Your task to perform on an android device: Look up the best rated bike seats on Target Image 0: 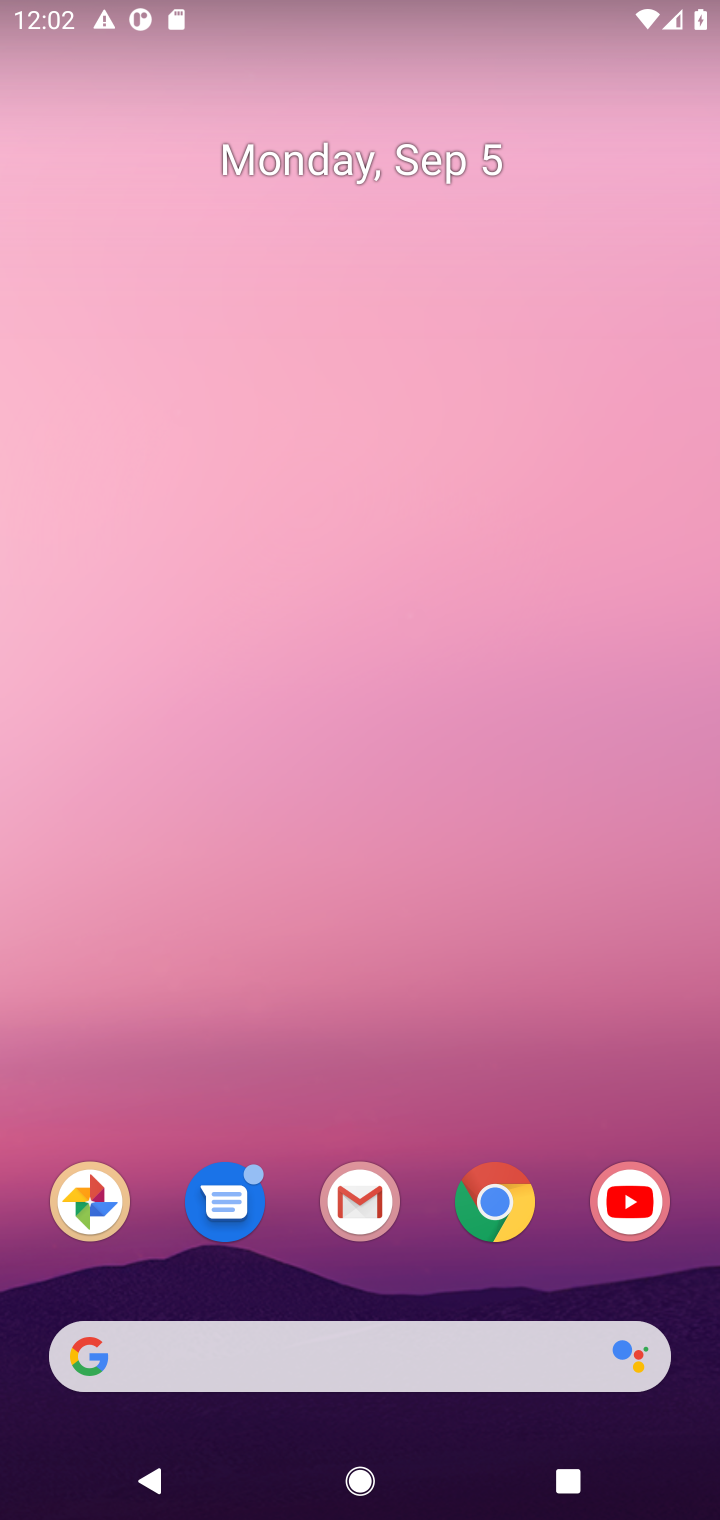
Step 0: drag from (592, 272) to (566, 46)
Your task to perform on an android device: Look up the best rated bike seats on Target Image 1: 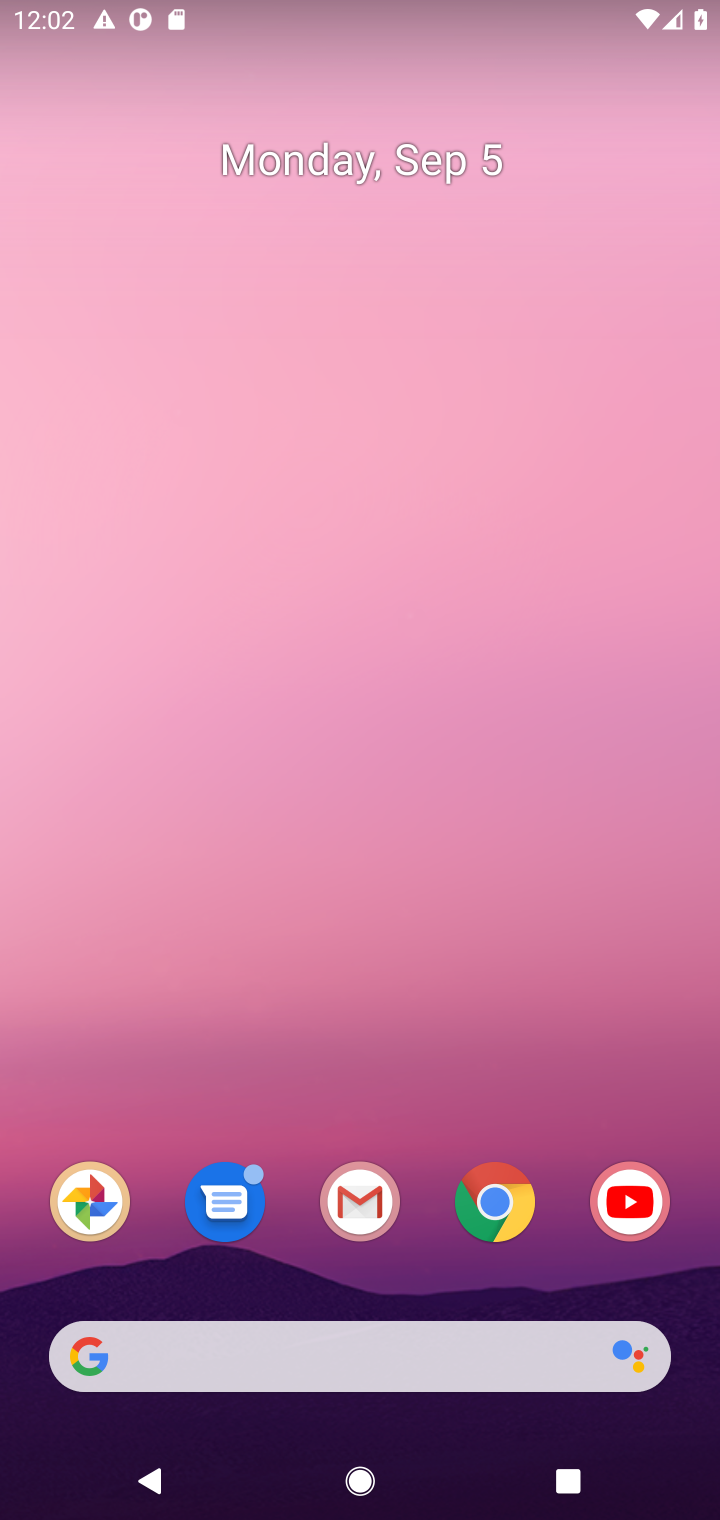
Step 1: drag from (386, 32) to (454, 3)
Your task to perform on an android device: Look up the best rated bike seats on Target Image 2: 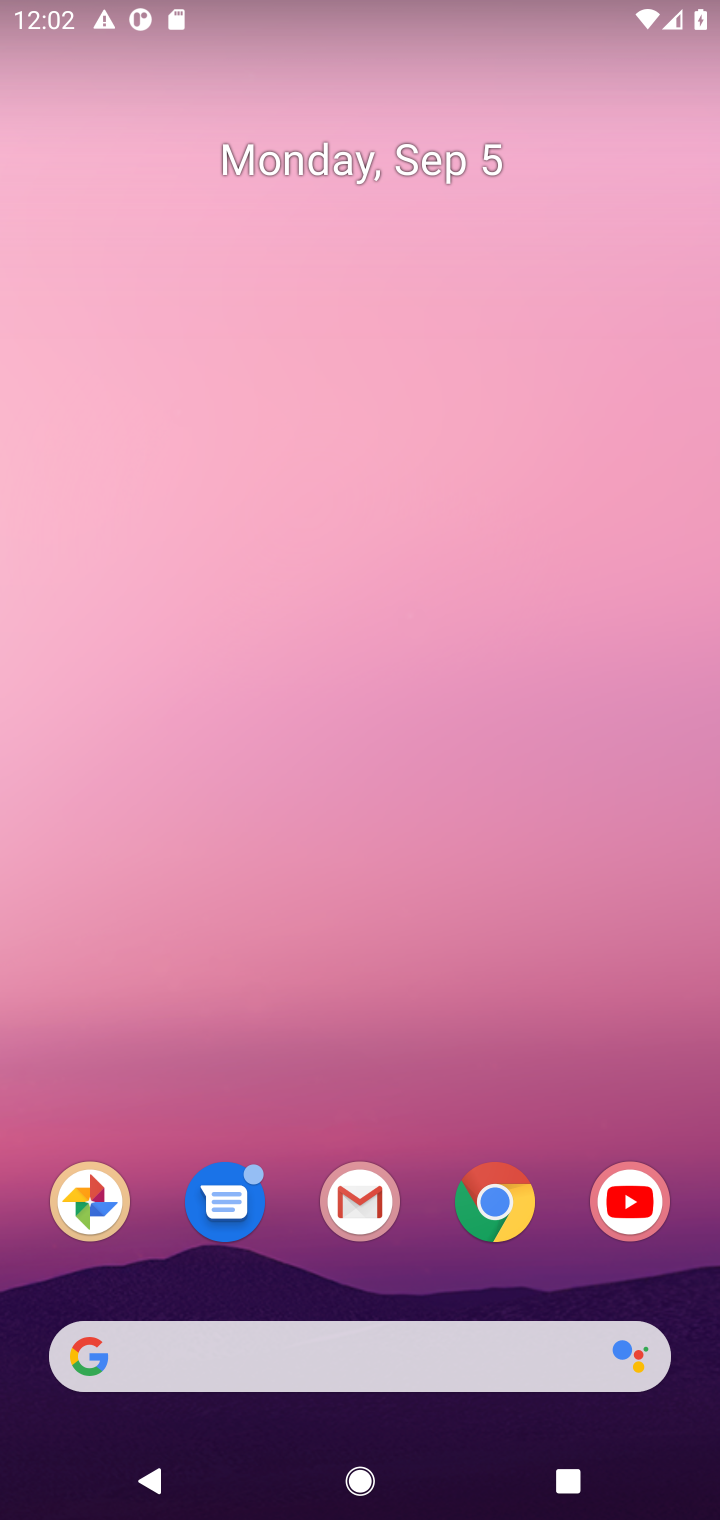
Step 2: drag from (446, 1195) to (483, 16)
Your task to perform on an android device: Look up the best rated bike seats on Target Image 3: 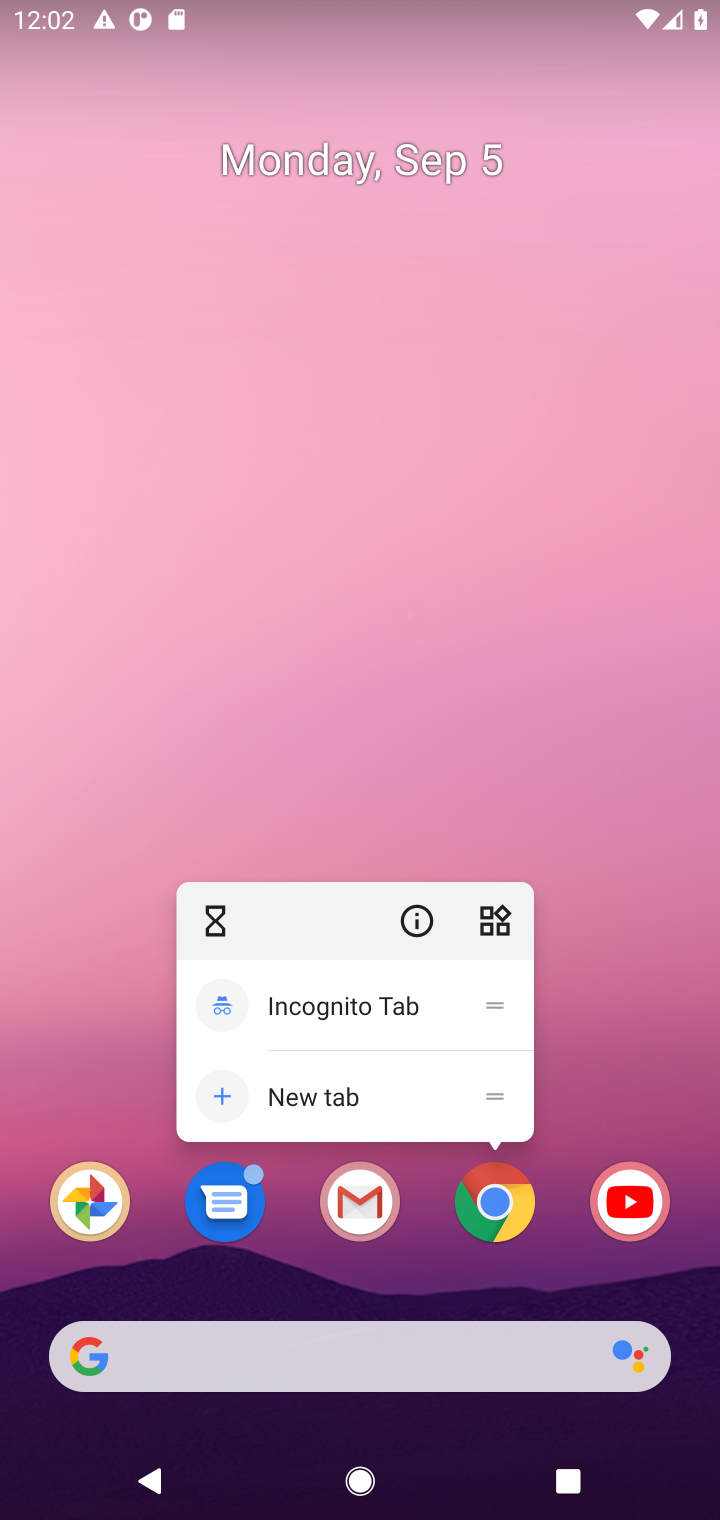
Step 3: click (581, 672)
Your task to perform on an android device: Look up the best rated bike seats on Target Image 4: 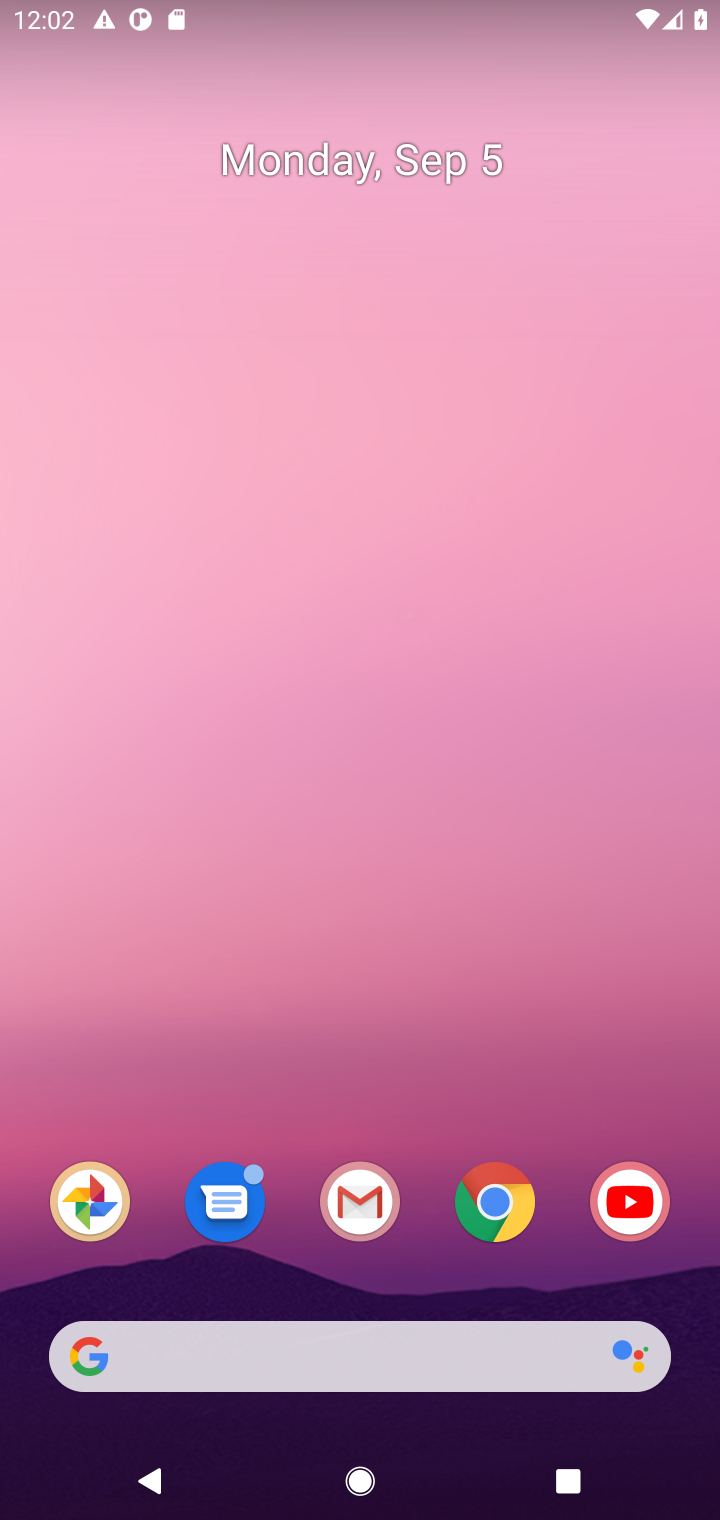
Step 4: drag from (430, 1265) to (662, 0)
Your task to perform on an android device: Look up the best rated bike seats on Target Image 5: 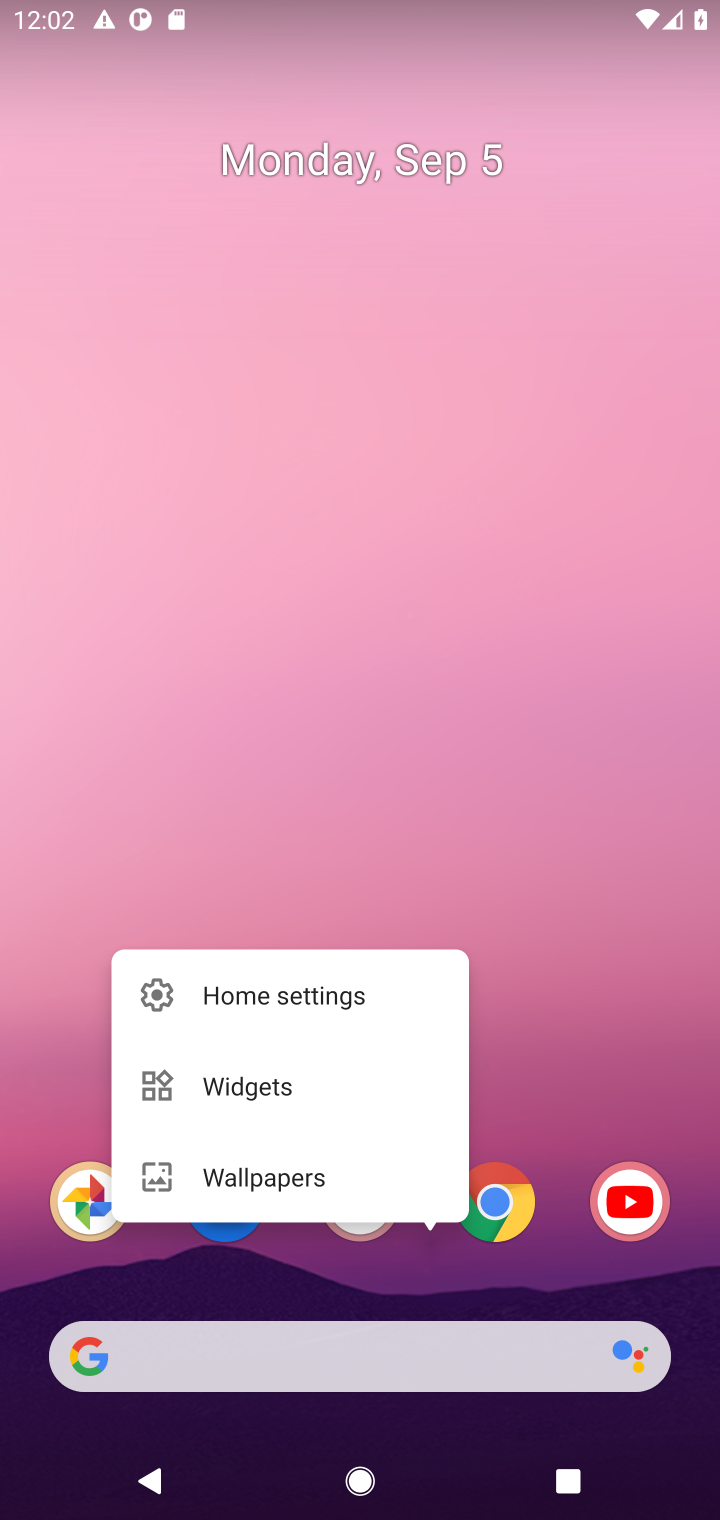
Step 5: click (483, 539)
Your task to perform on an android device: Look up the best rated bike seats on Target Image 6: 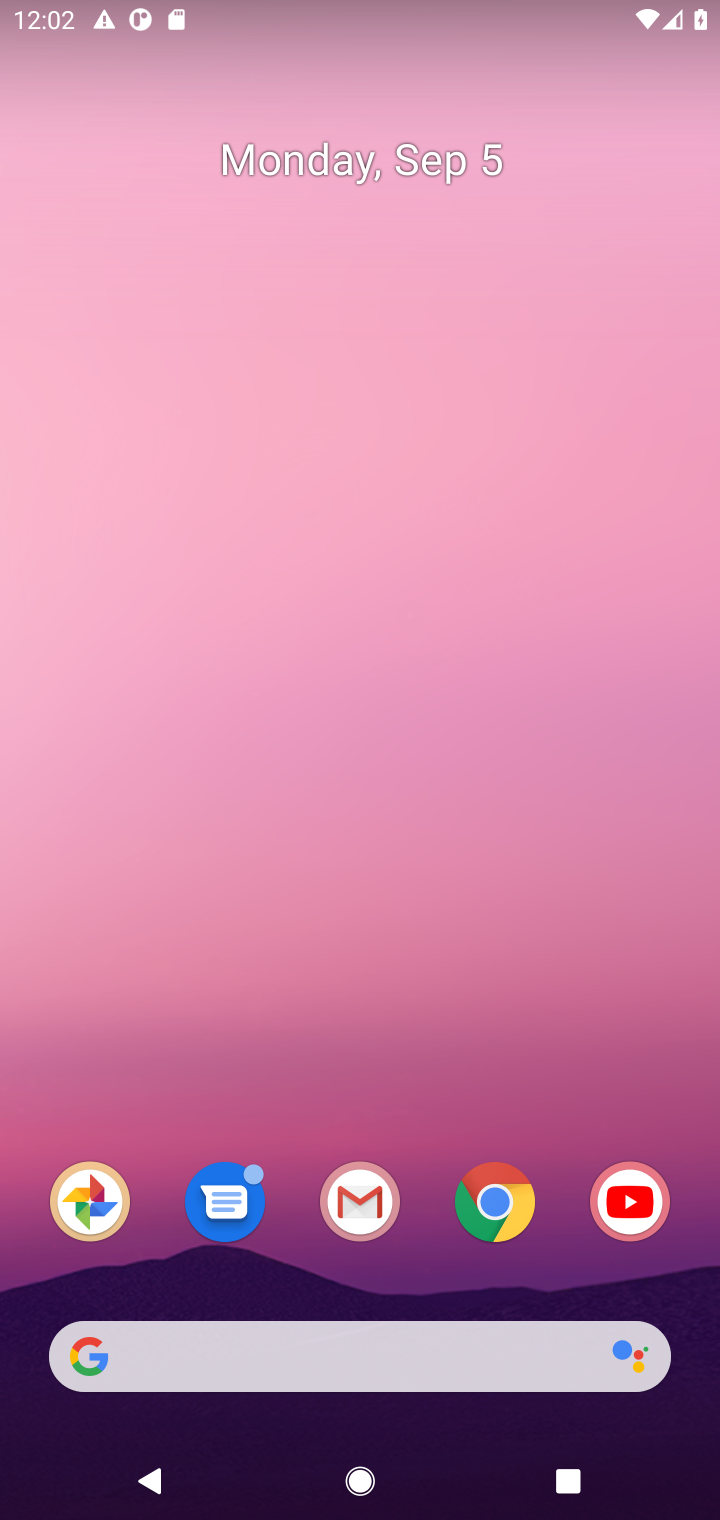
Step 6: click (592, 758)
Your task to perform on an android device: Look up the best rated bike seats on Target Image 7: 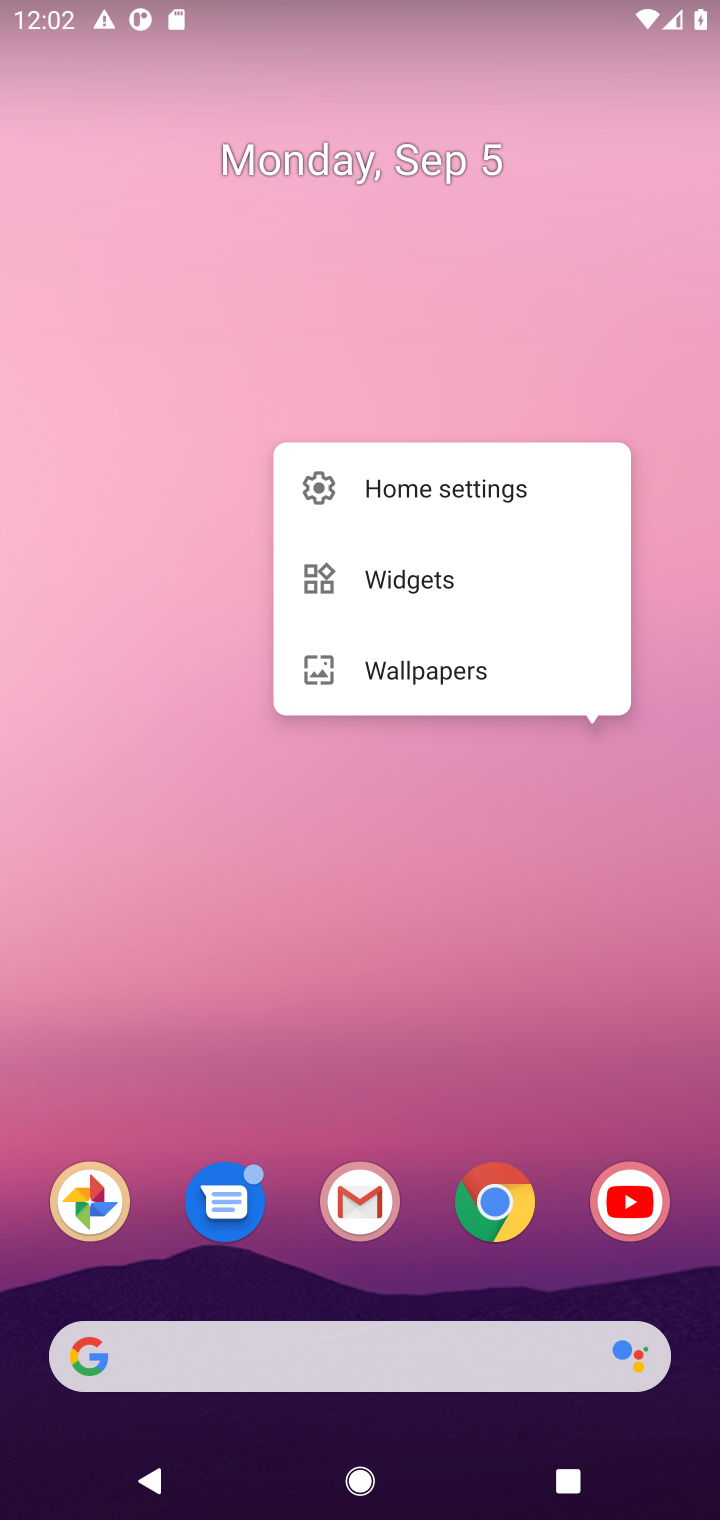
Step 7: click (424, 1262)
Your task to perform on an android device: Look up the best rated bike seats on Target Image 8: 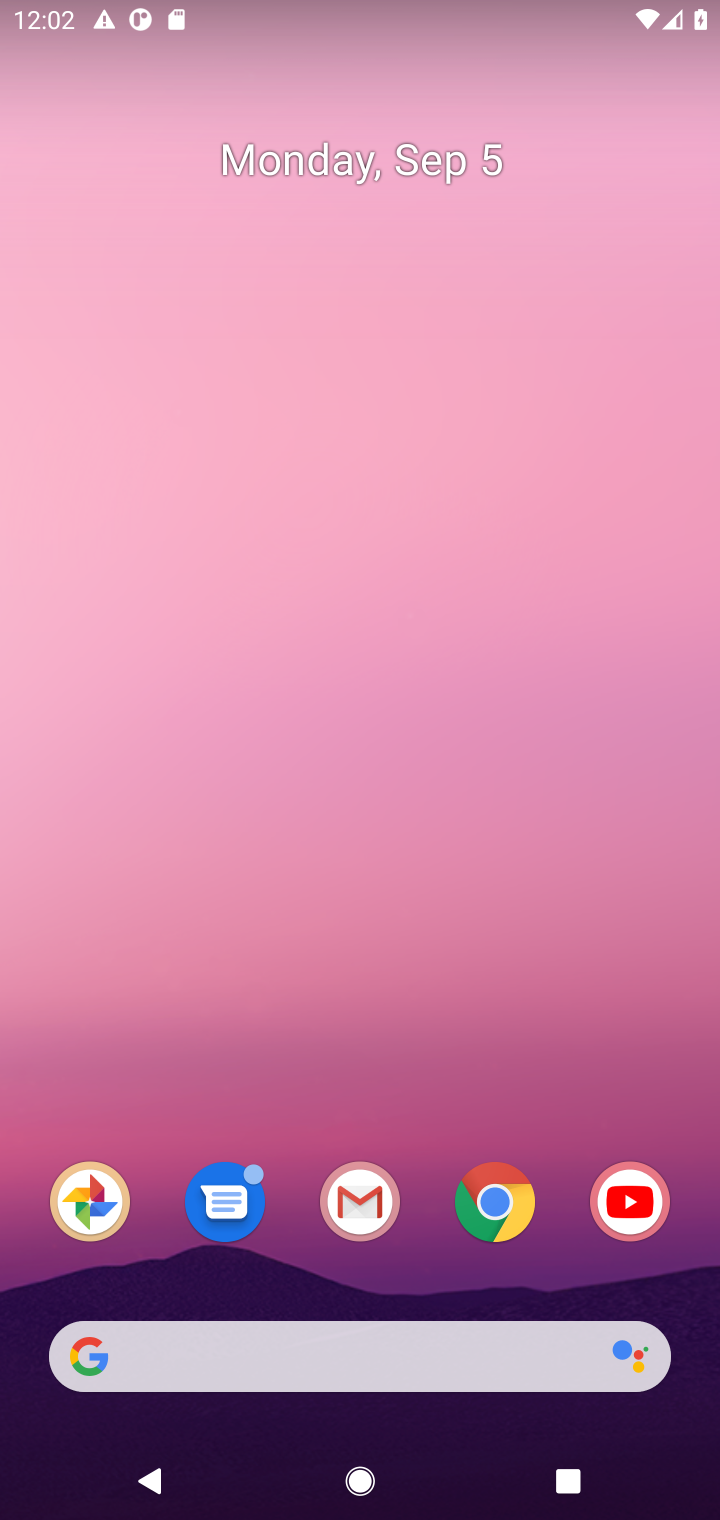
Step 8: drag from (449, 1262) to (475, 41)
Your task to perform on an android device: Look up the best rated bike seats on Target Image 9: 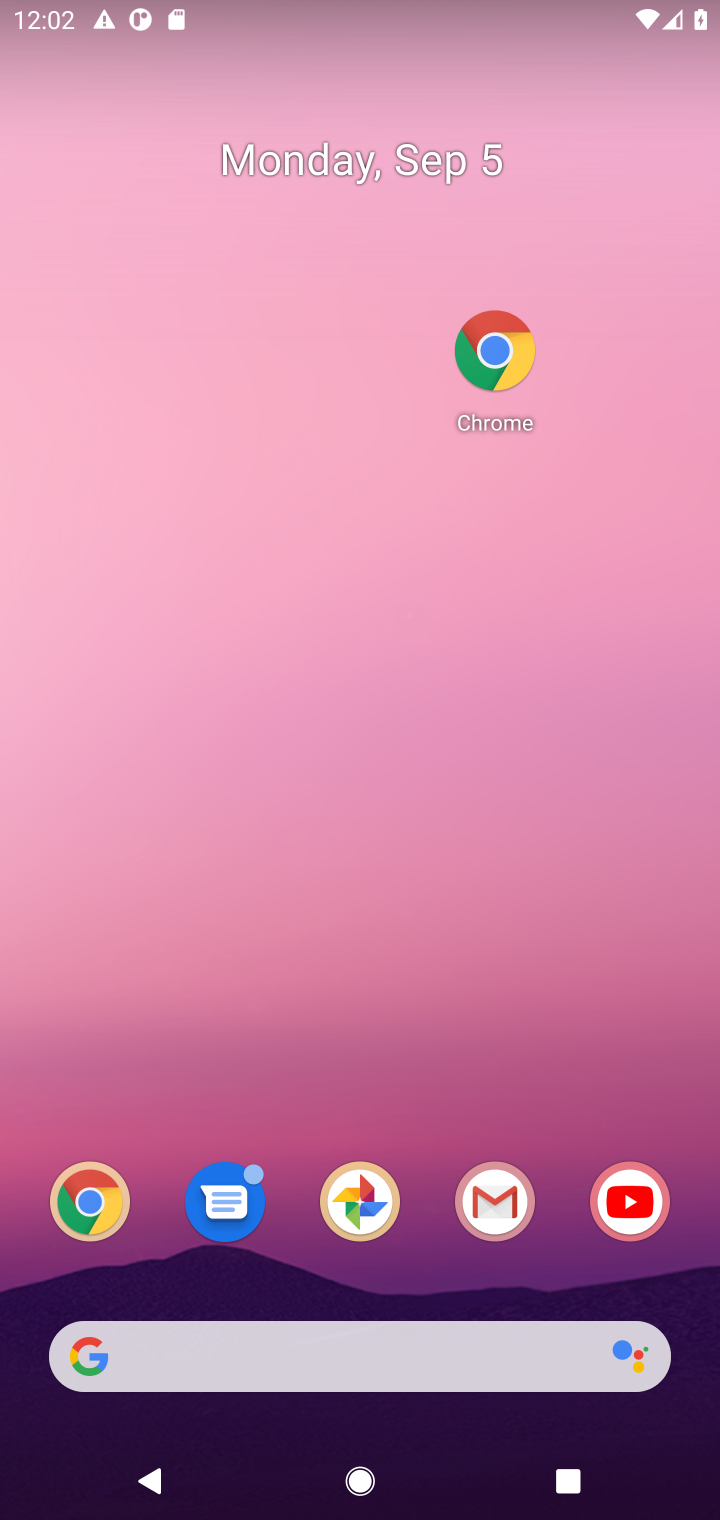
Step 9: drag from (438, 1278) to (298, 12)
Your task to perform on an android device: Look up the best rated bike seats on Target Image 10: 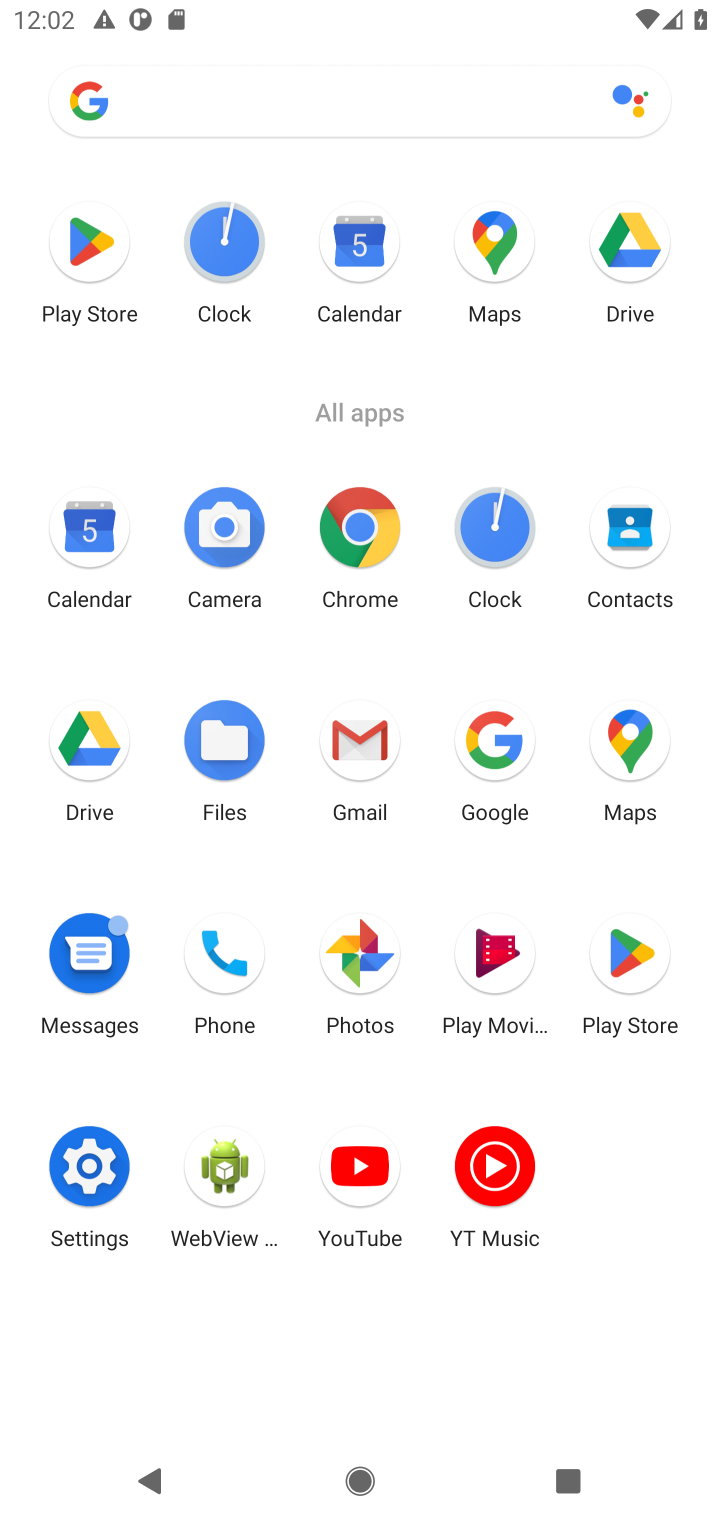
Step 10: click (370, 528)
Your task to perform on an android device: Look up the best rated bike seats on Target Image 11: 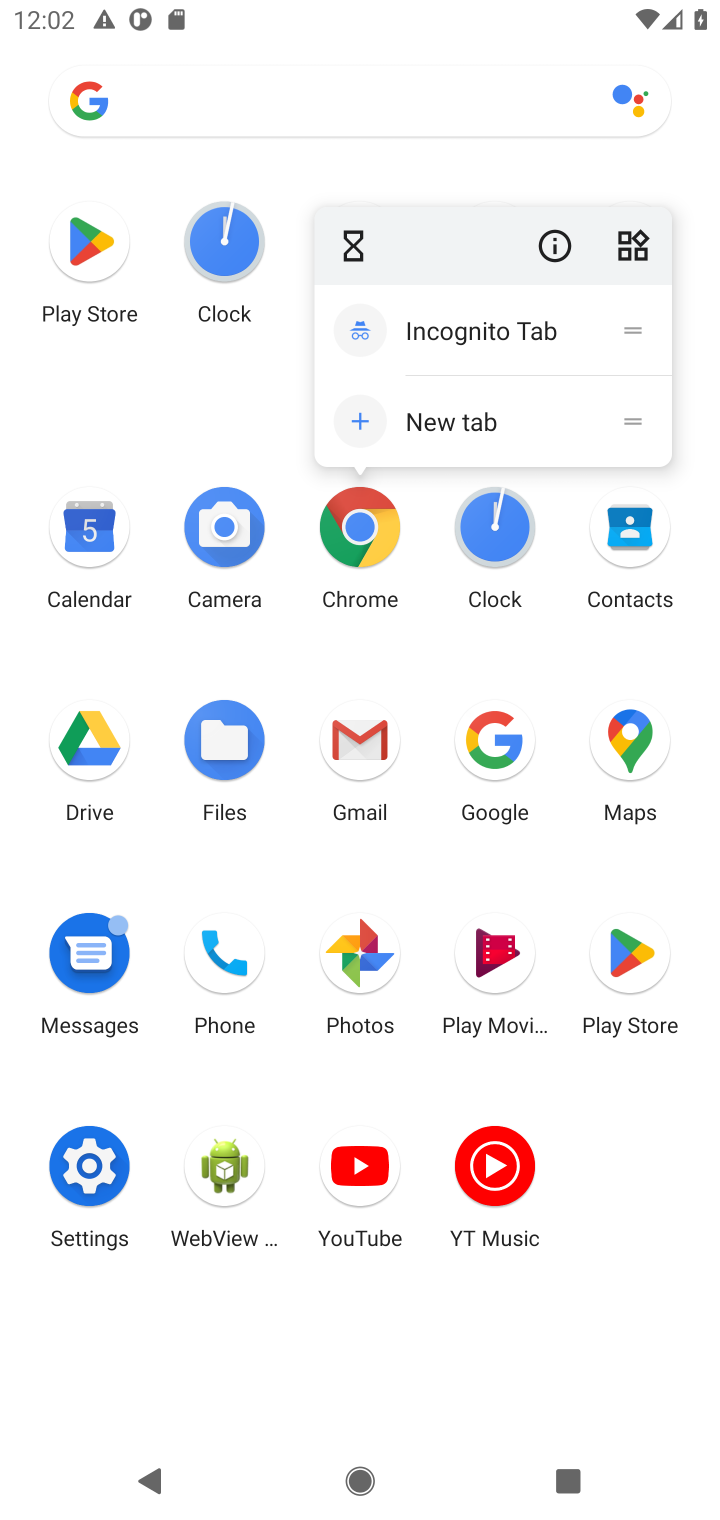
Step 11: click (355, 515)
Your task to perform on an android device: Look up the best rated bike seats on Target Image 12: 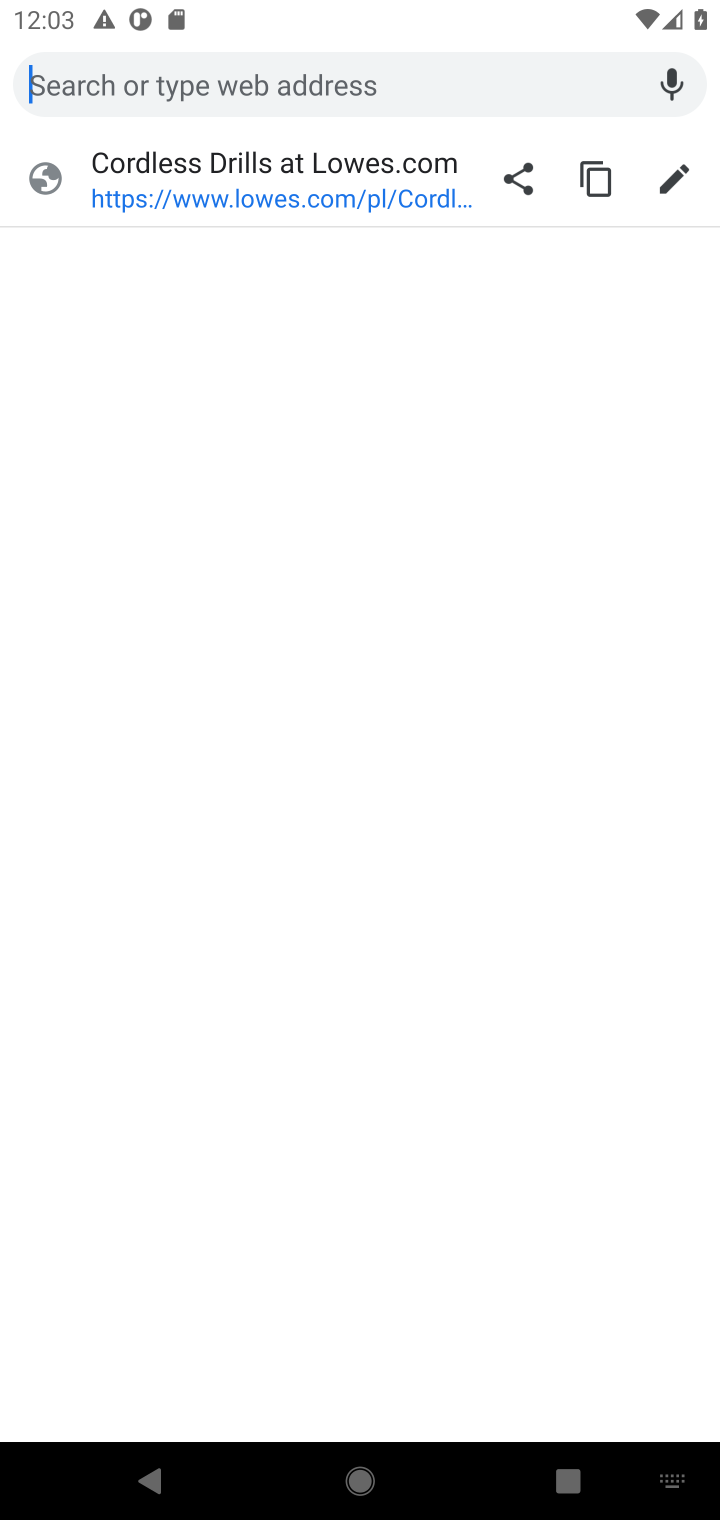
Step 12: type "best rated bike seats on Target"
Your task to perform on an android device: Look up the best rated bike seats on Target Image 13: 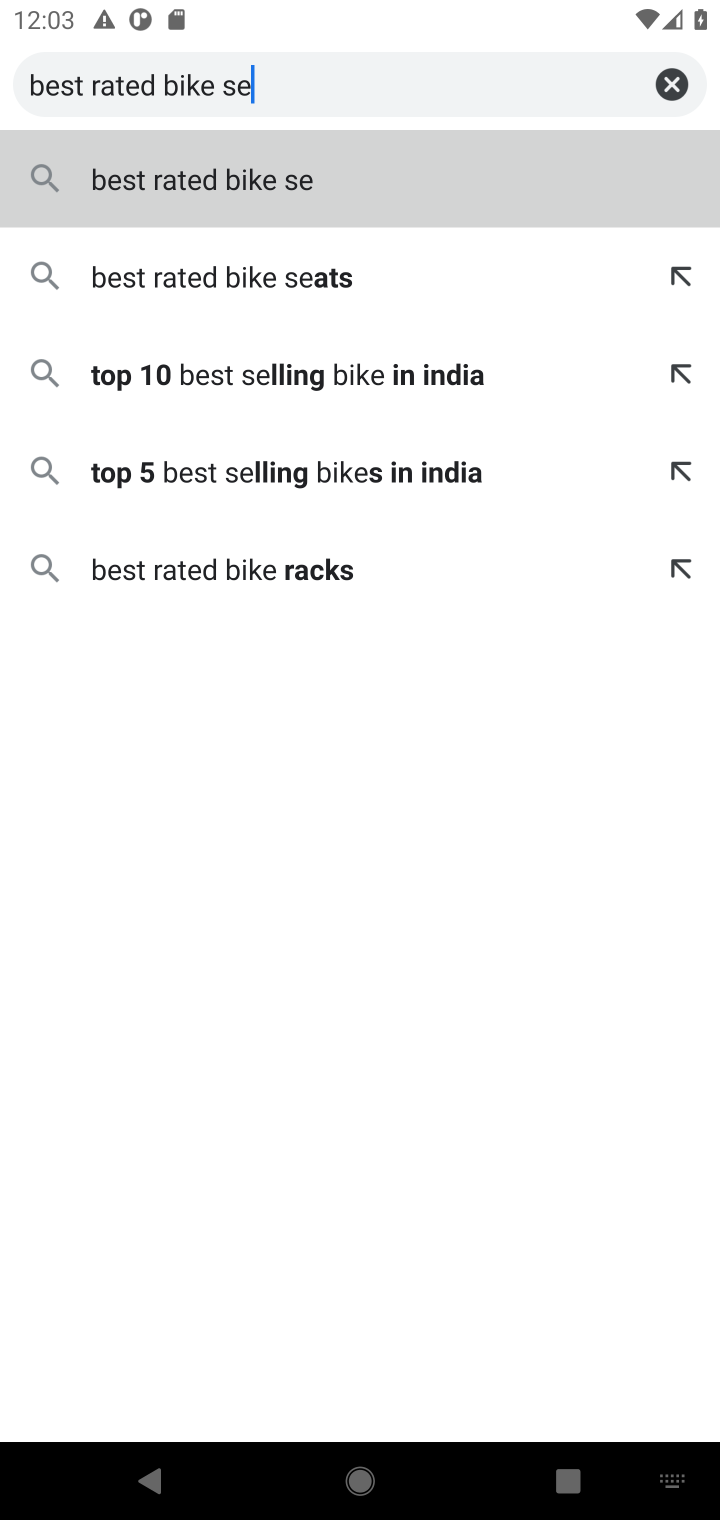
Step 13: type "ats on Target"
Your task to perform on an android device: Look up the best rated bike seats on Target Image 14: 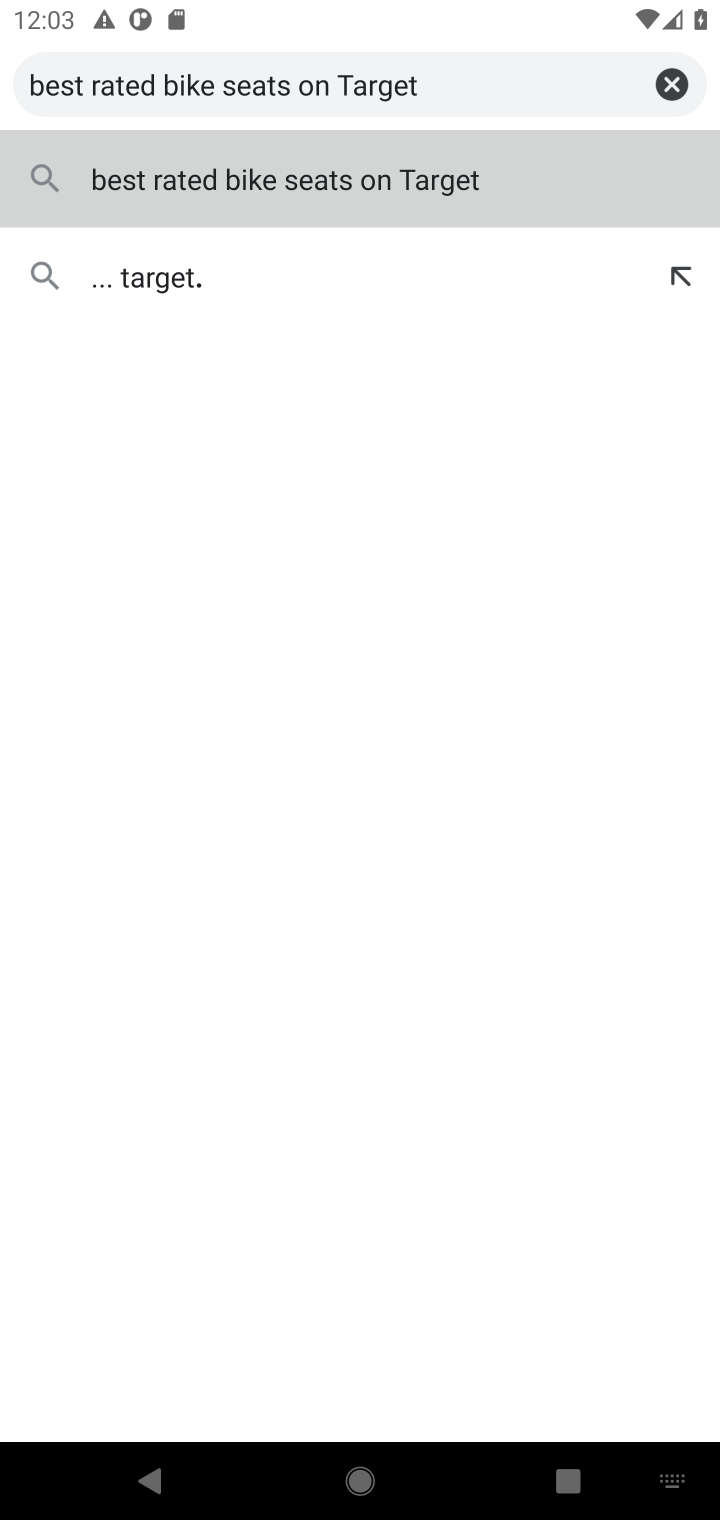
Step 14: press enter
Your task to perform on an android device: Look up the best rated bike seats on Target Image 15: 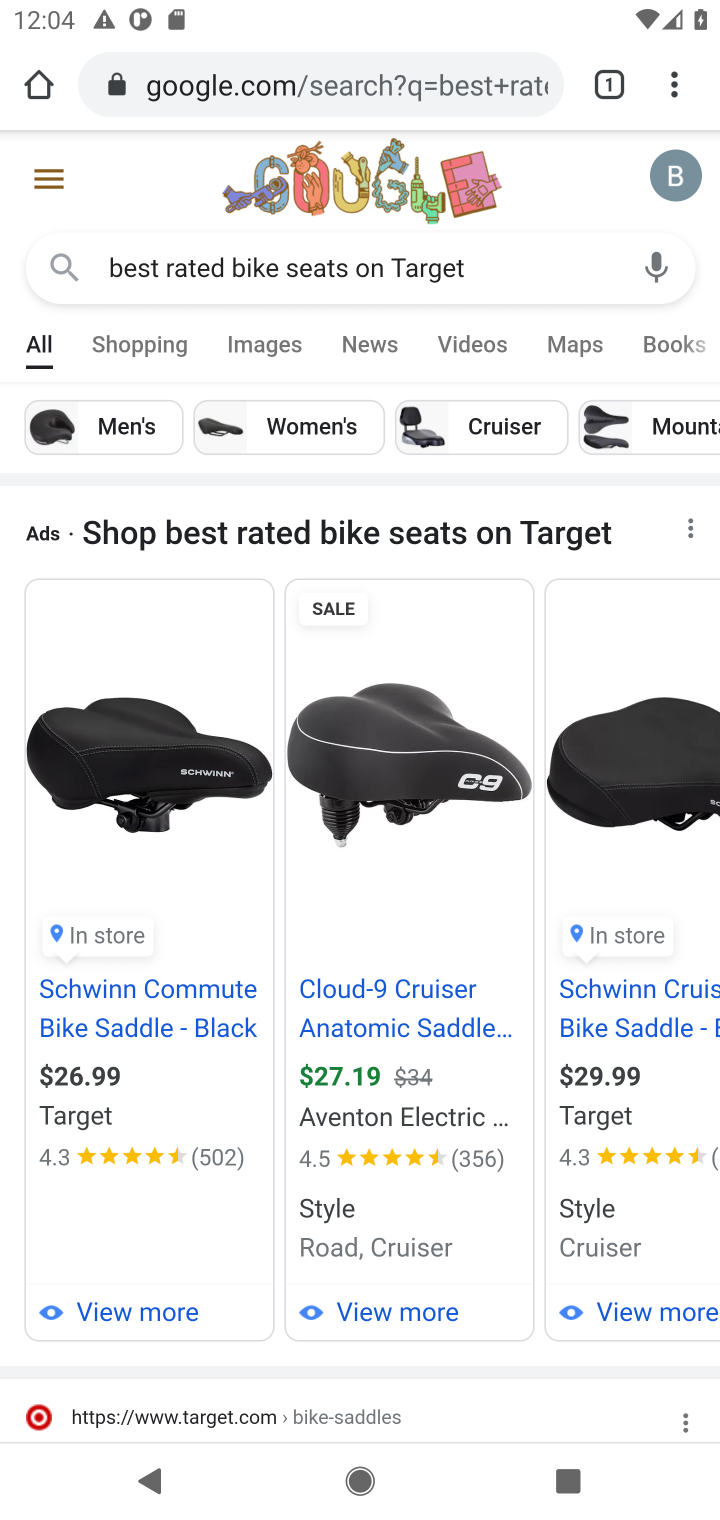
Step 15: drag from (365, 405) to (412, 239)
Your task to perform on an android device: Look up the best rated bike seats on Target Image 16: 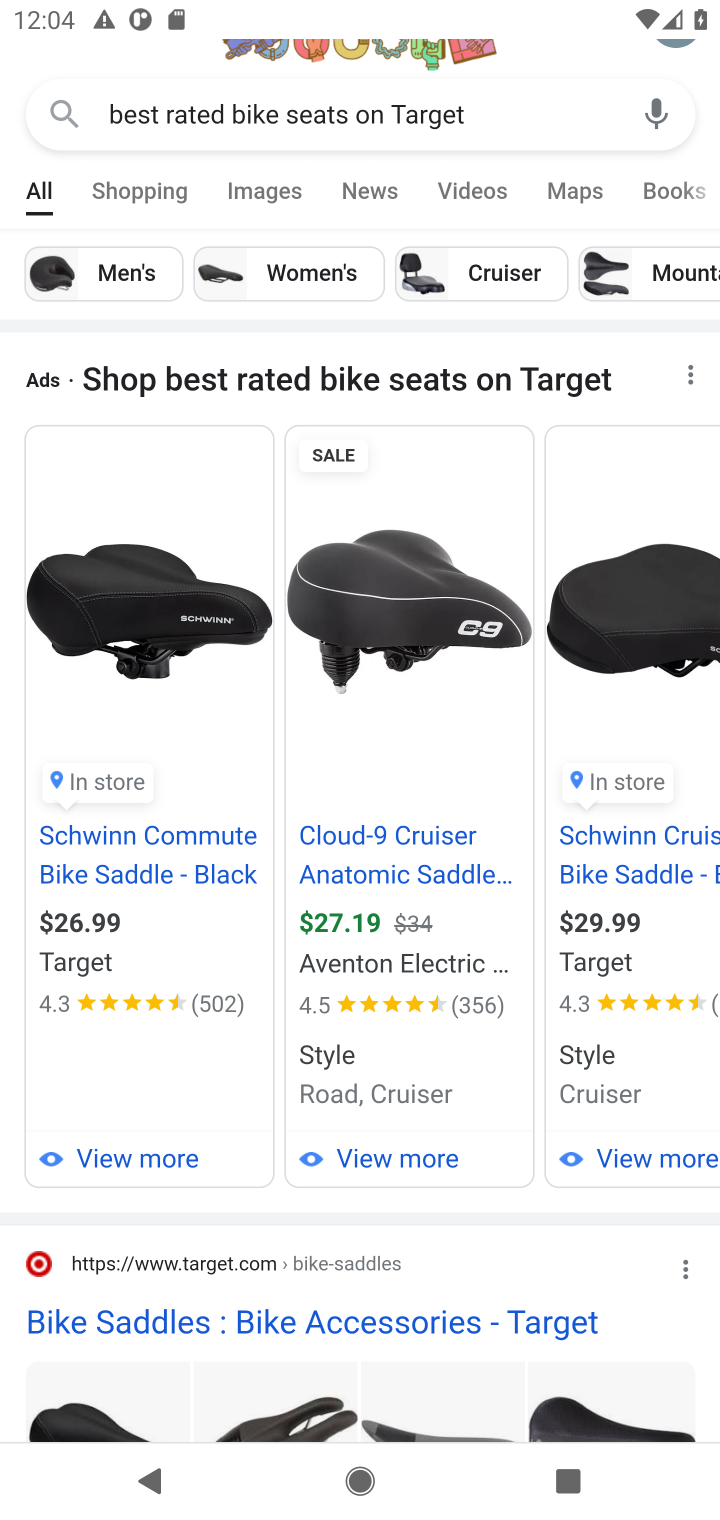
Step 16: drag from (478, 1026) to (507, 125)
Your task to perform on an android device: Look up the best rated bike seats on Target Image 17: 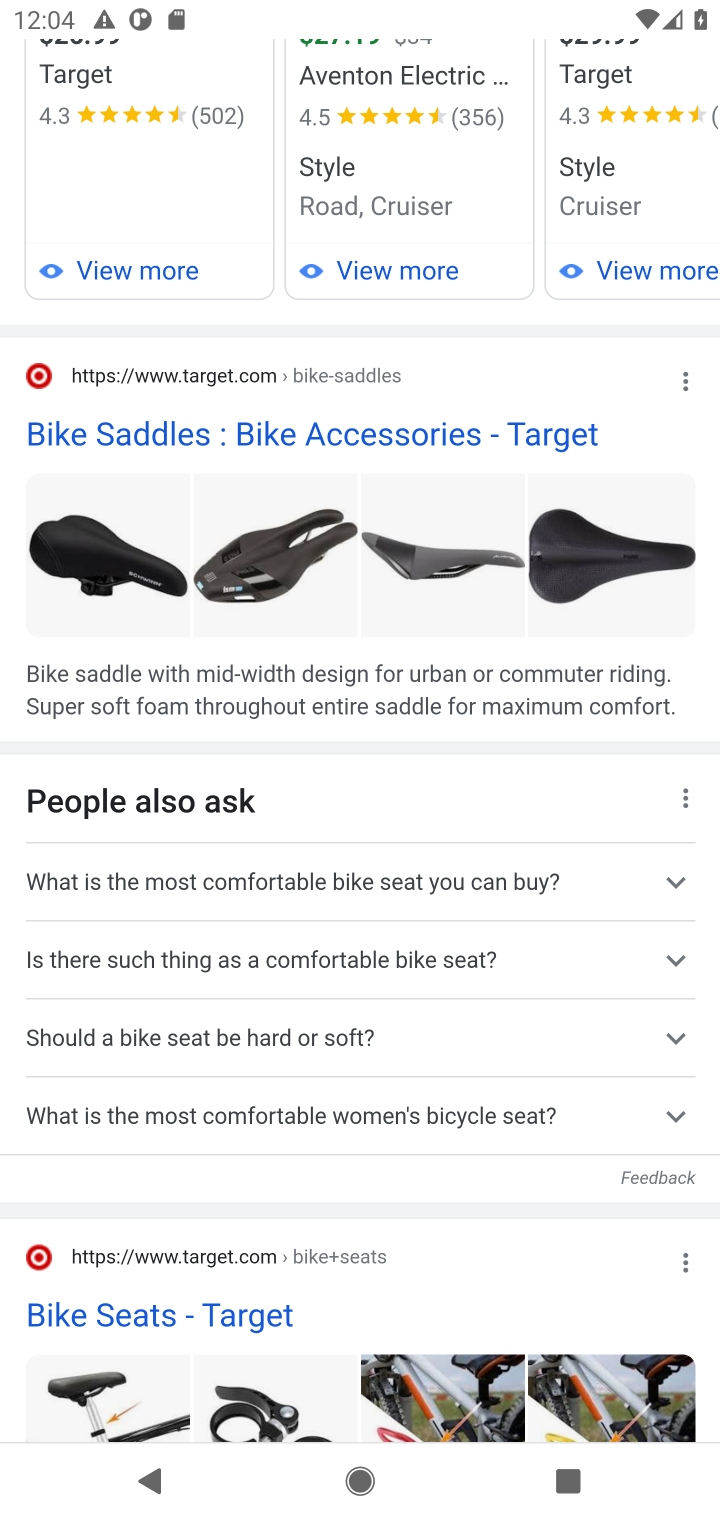
Step 17: click (319, 432)
Your task to perform on an android device: Look up the best rated bike seats on Target Image 18: 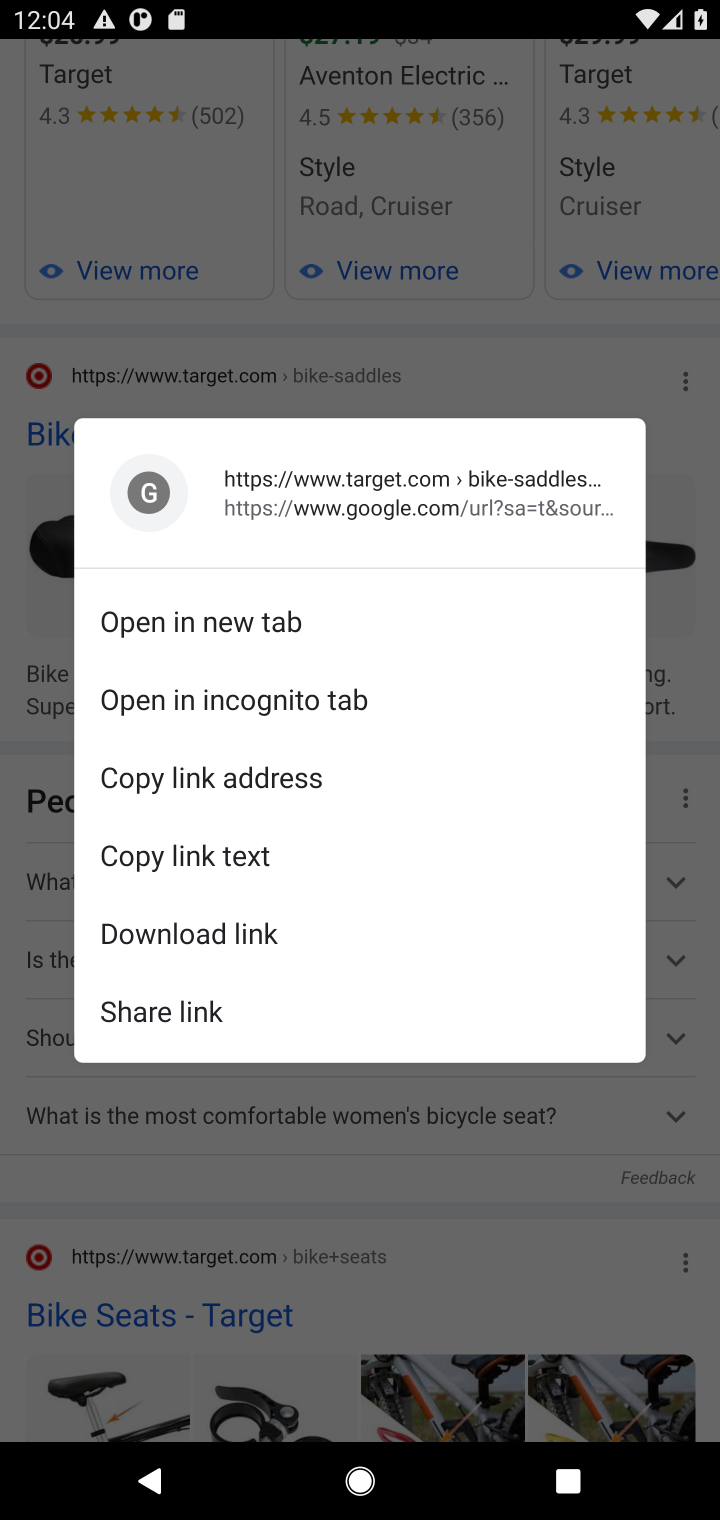
Step 18: click (613, 1218)
Your task to perform on an android device: Look up the best rated bike seats on Target Image 19: 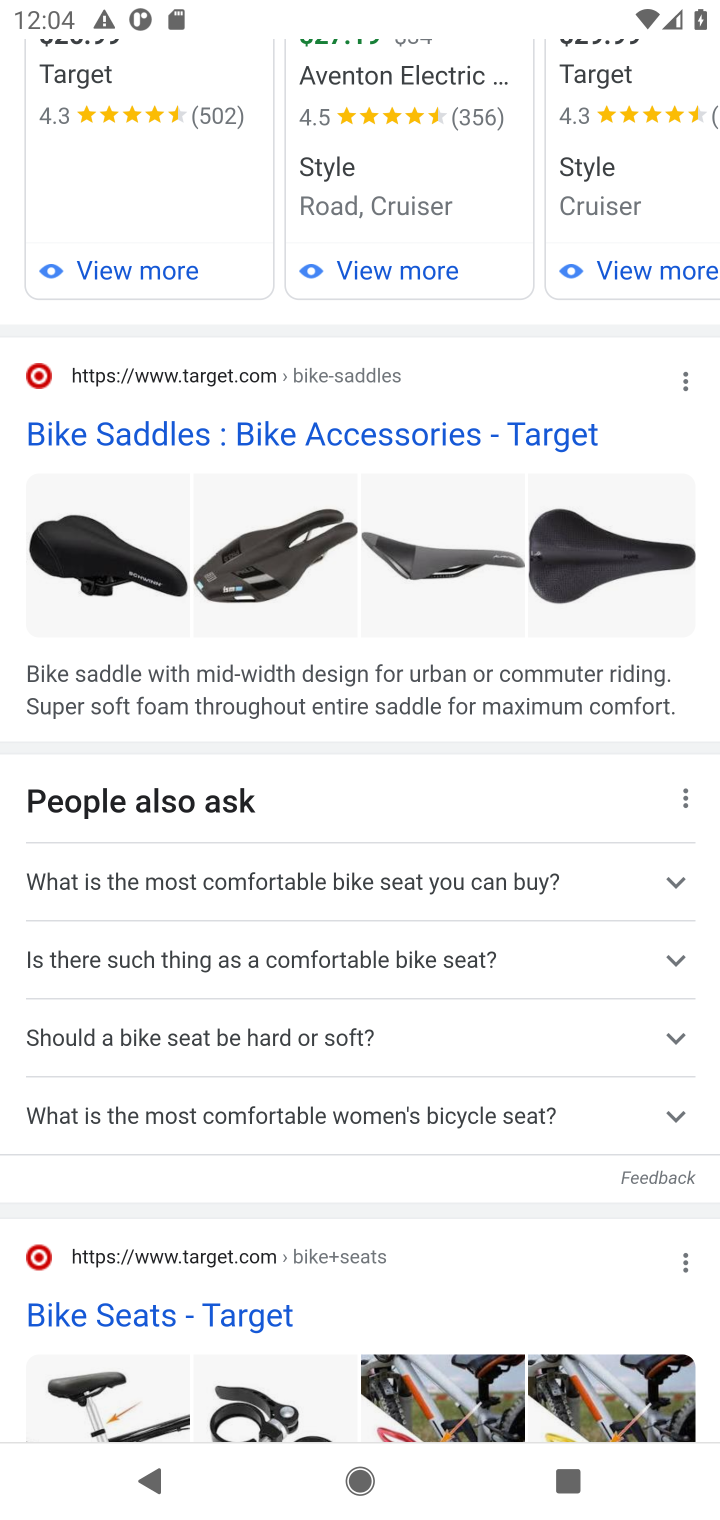
Step 19: click (224, 448)
Your task to perform on an android device: Look up the best rated bike seats on Target Image 20: 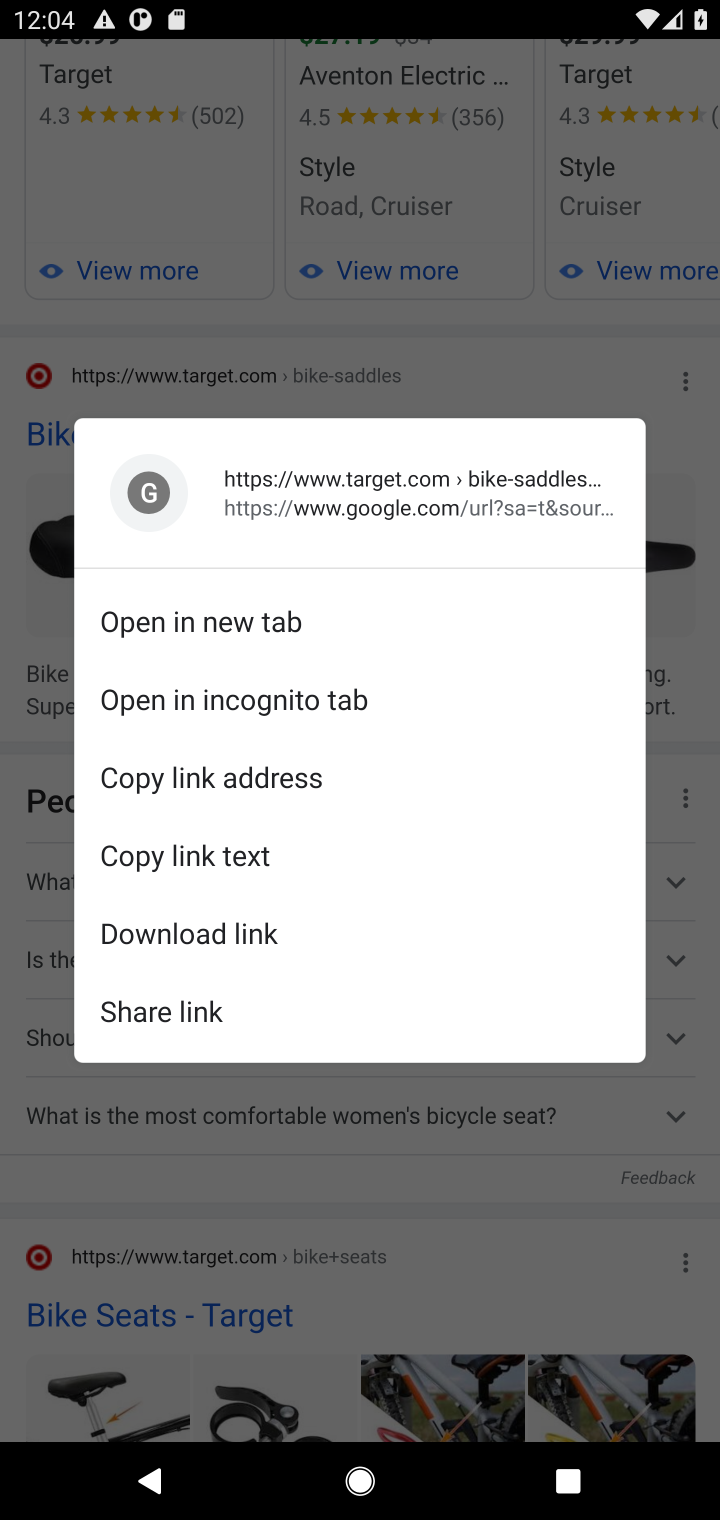
Step 20: click (567, 266)
Your task to perform on an android device: Look up the best rated bike seats on Target Image 21: 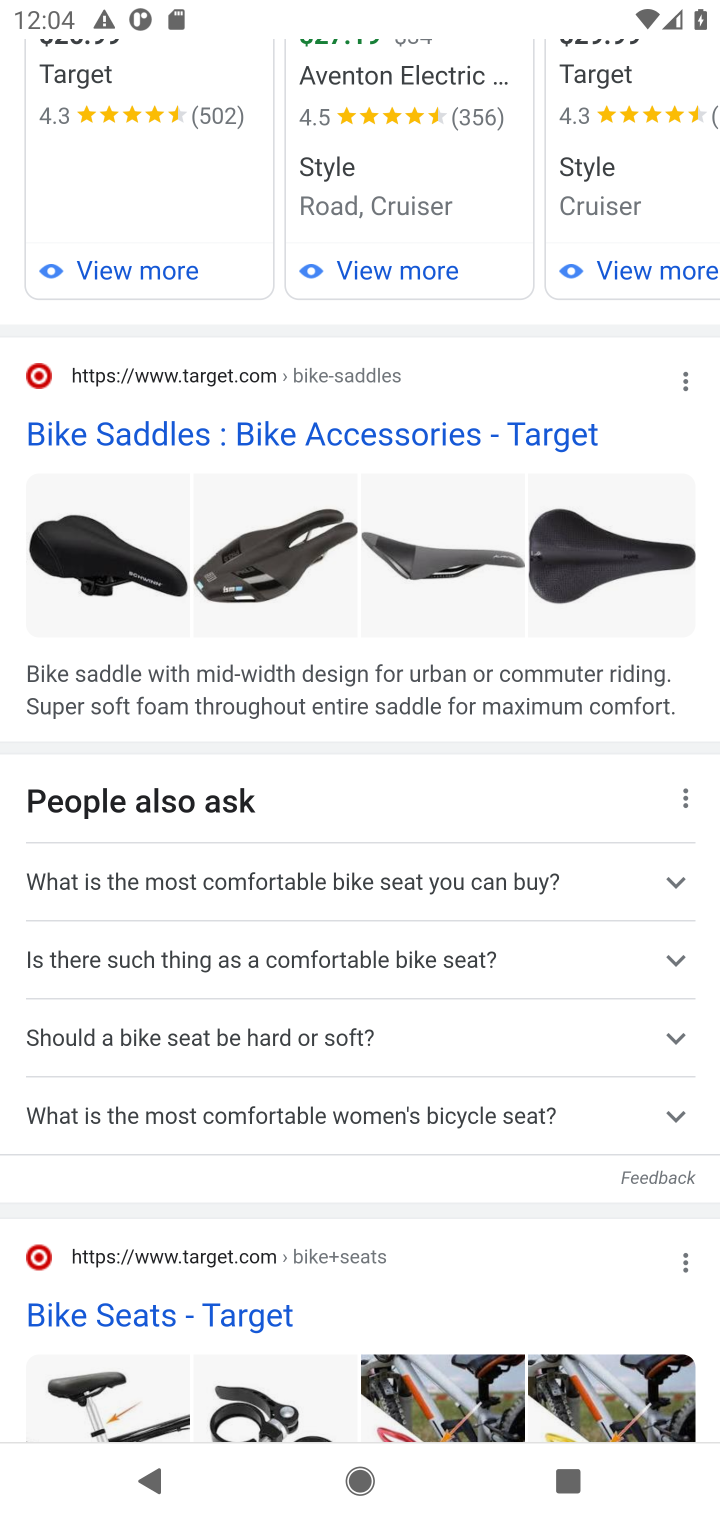
Step 21: click (415, 424)
Your task to perform on an android device: Look up the best rated bike seats on Target Image 22: 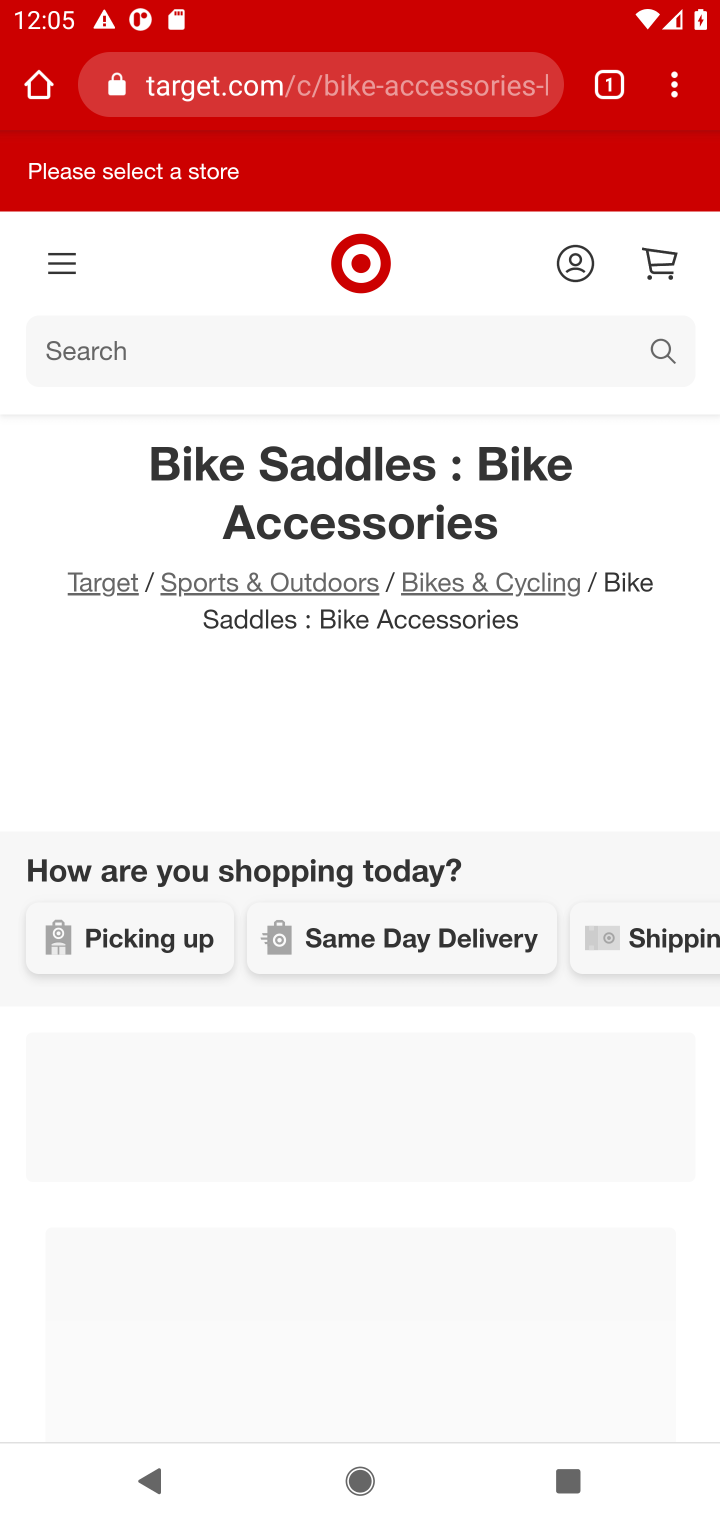
Step 22: task complete